Your task to perform on an android device: Search for pizza restaurants on Maps Image 0: 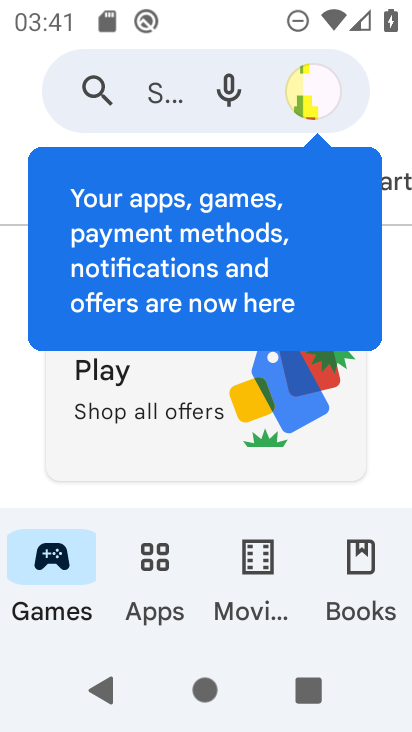
Step 0: press home button
Your task to perform on an android device: Search for pizza restaurants on Maps Image 1: 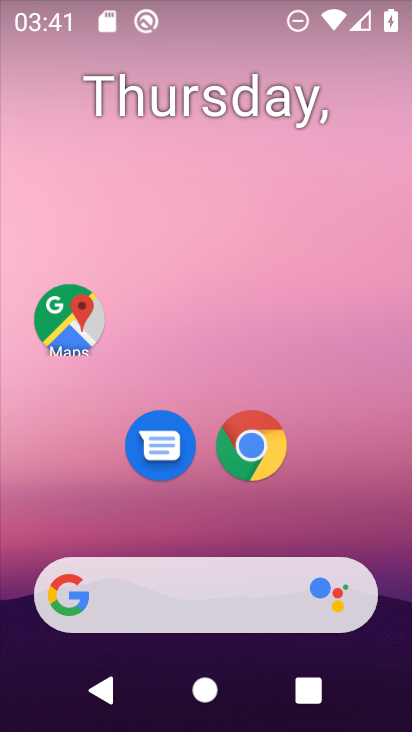
Step 1: click (68, 321)
Your task to perform on an android device: Search for pizza restaurants on Maps Image 2: 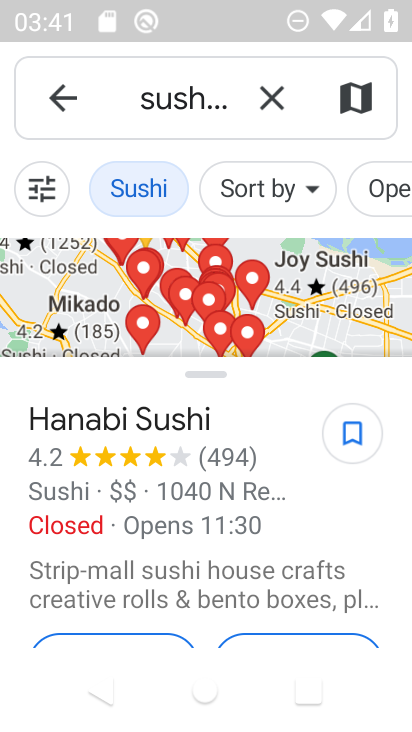
Step 2: click (258, 109)
Your task to perform on an android device: Search for pizza restaurants on Maps Image 3: 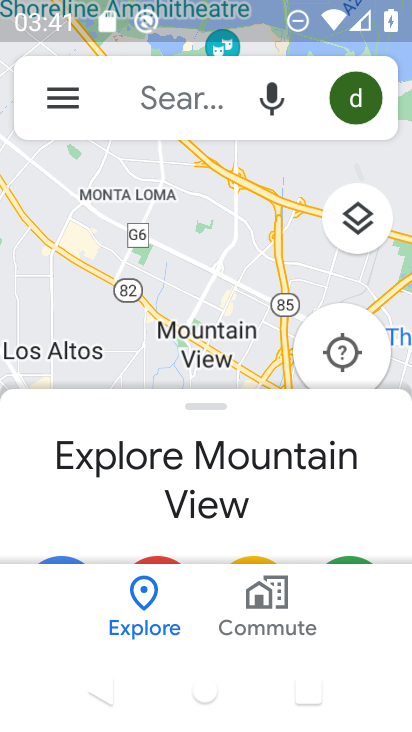
Step 3: click (143, 98)
Your task to perform on an android device: Search for pizza restaurants on Maps Image 4: 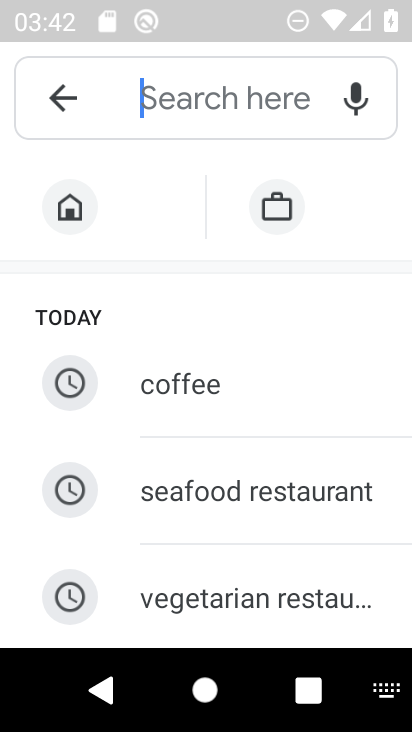
Step 4: type "pizza restaurants"
Your task to perform on an android device: Search for pizza restaurants on Maps Image 5: 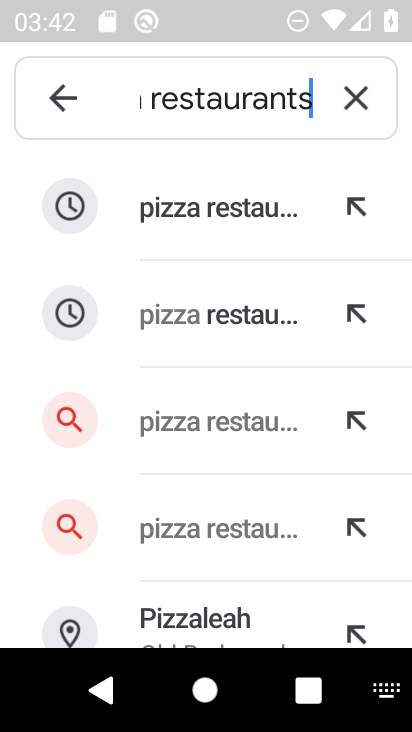
Step 5: click (243, 214)
Your task to perform on an android device: Search for pizza restaurants on Maps Image 6: 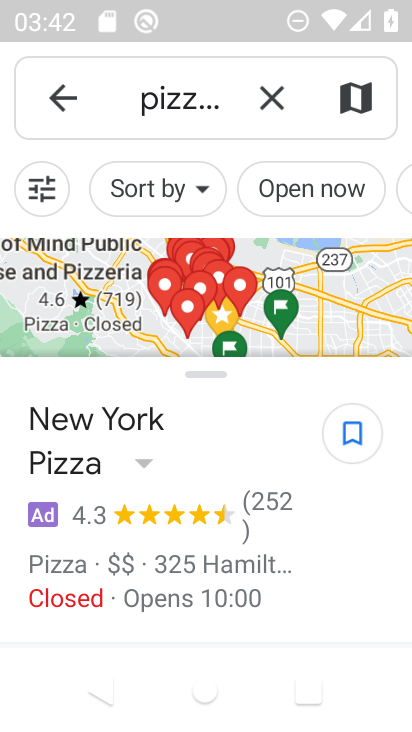
Step 6: task complete